Your task to perform on an android device: Open accessibility settings Image 0: 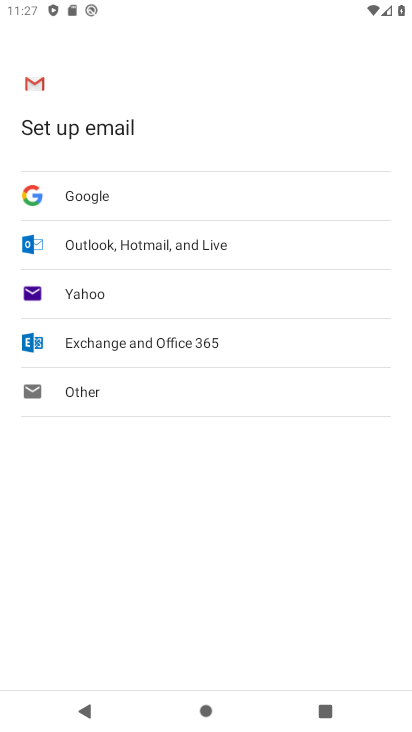
Step 0: press home button
Your task to perform on an android device: Open accessibility settings Image 1: 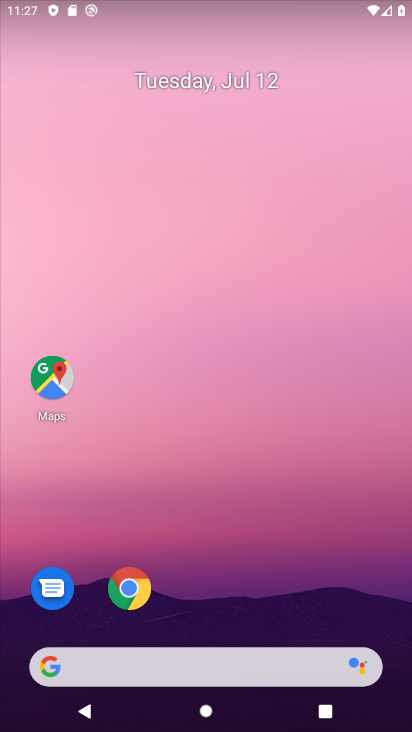
Step 1: drag from (186, 575) to (183, 274)
Your task to perform on an android device: Open accessibility settings Image 2: 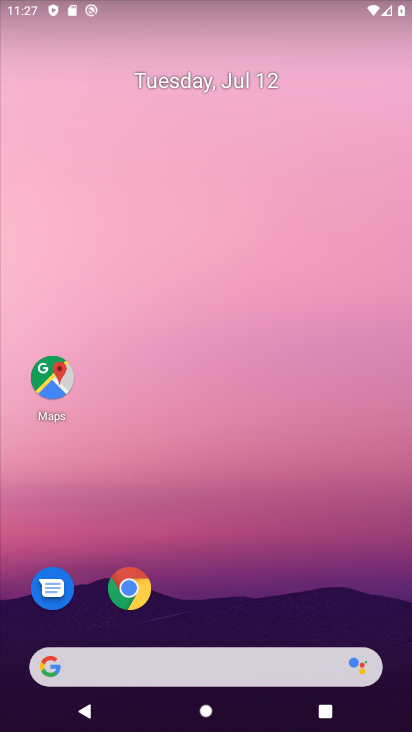
Step 2: drag from (260, 633) to (330, 112)
Your task to perform on an android device: Open accessibility settings Image 3: 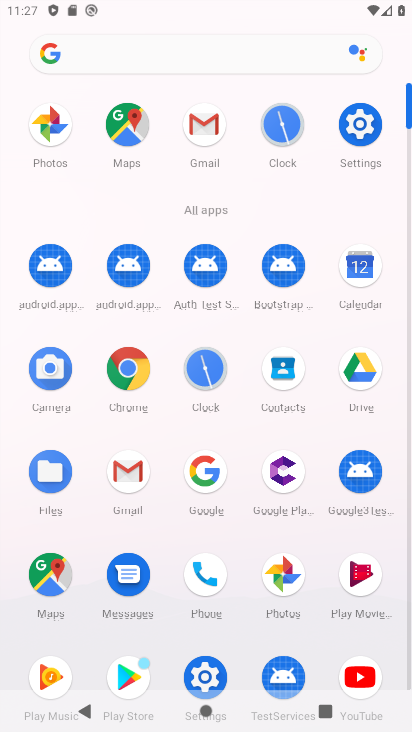
Step 3: click (361, 142)
Your task to perform on an android device: Open accessibility settings Image 4: 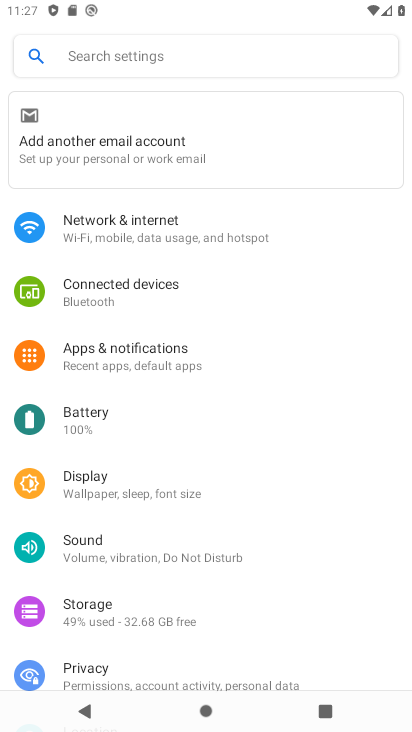
Step 4: drag from (146, 617) to (200, 202)
Your task to perform on an android device: Open accessibility settings Image 5: 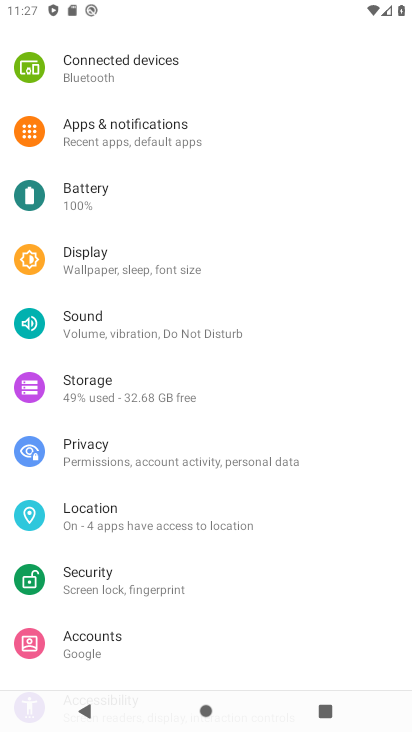
Step 5: drag from (153, 650) to (178, 292)
Your task to perform on an android device: Open accessibility settings Image 6: 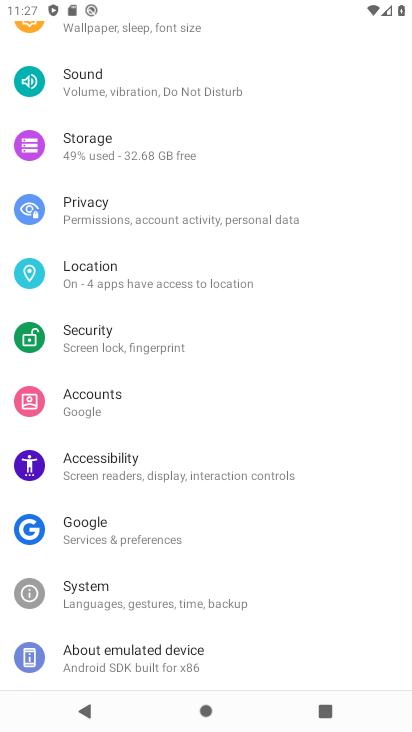
Step 6: click (130, 463)
Your task to perform on an android device: Open accessibility settings Image 7: 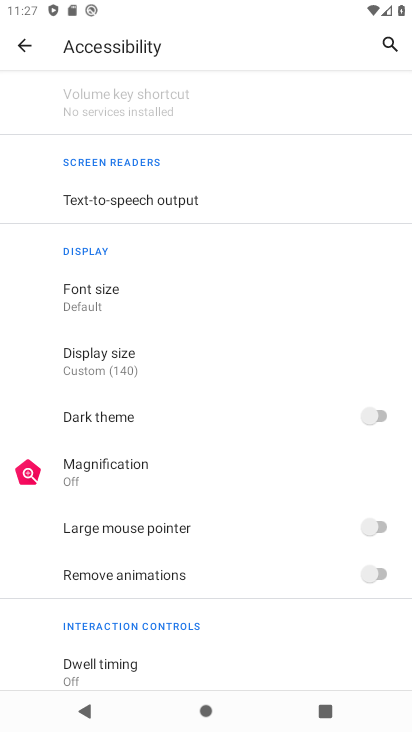
Step 7: task complete